Your task to perform on an android device: open a bookmark in the chrome app Image 0: 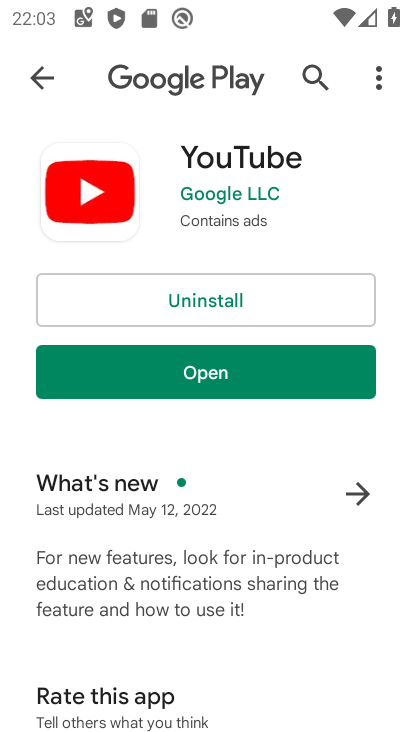
Step 0: press home button
Your task to perform on an android device: open a bookmark in the chrome app Image 1: 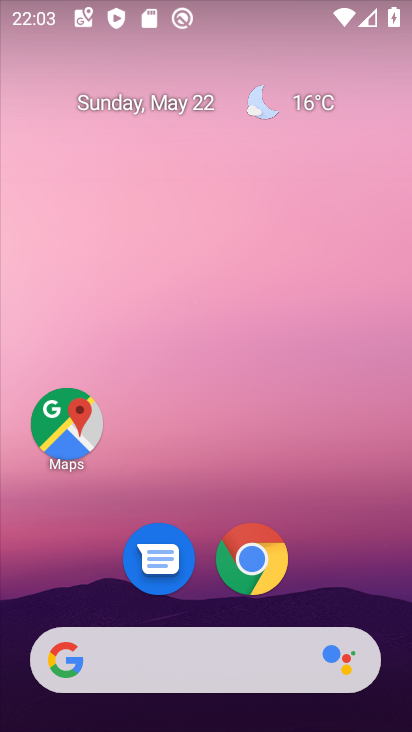
Step 1: drag from (281, 656) to (220, 176)
Your task to perform on an android device: open a bookmark in the chrome app Image 2: 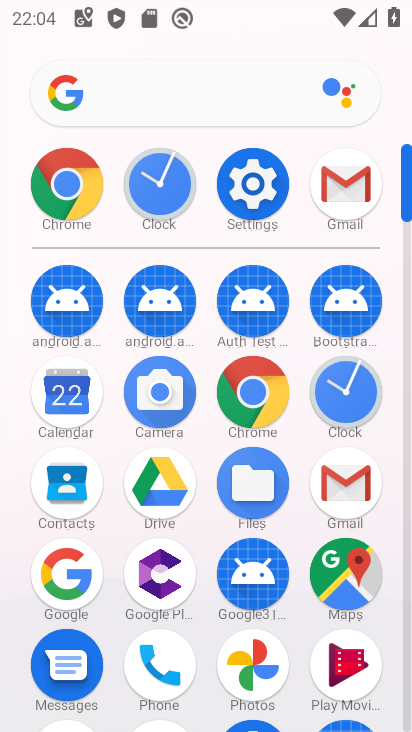
Step 2: click (242, 388)
Your task to perform on an android device: open a bookmark in the chrome app Image 3: 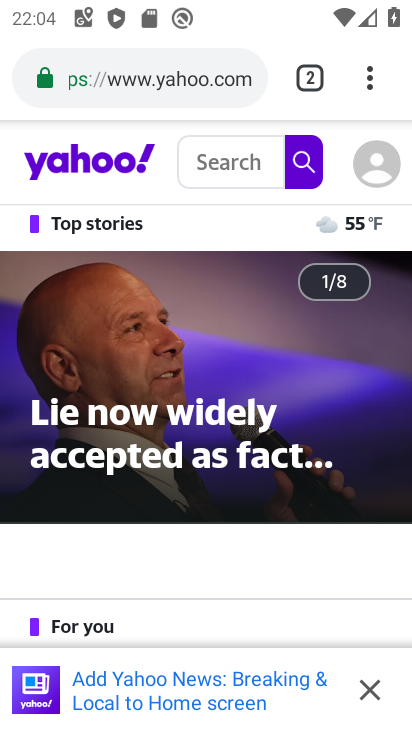
Step 3: click (359, 97)
Your task to perform on an android device: open a bookmark in the chrome app Image 4: 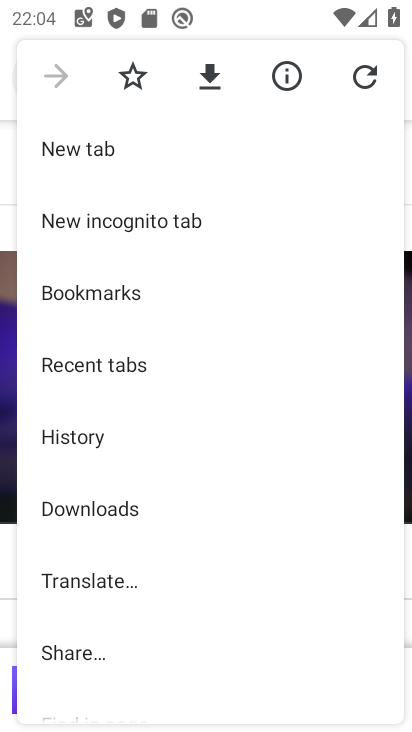
Step 4: click (115, 292)
Your task to perform on an android device: open a bookmark in the chrome app Image 5: 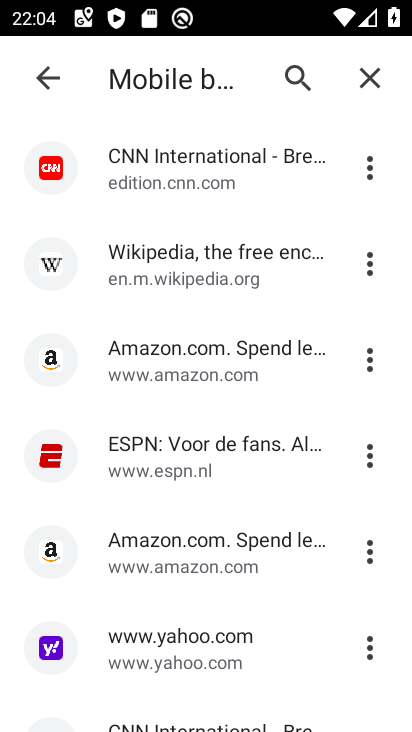
Step 5: task complete